Your task to perform on an android device: toggle javascript in the chrome app Image 0: 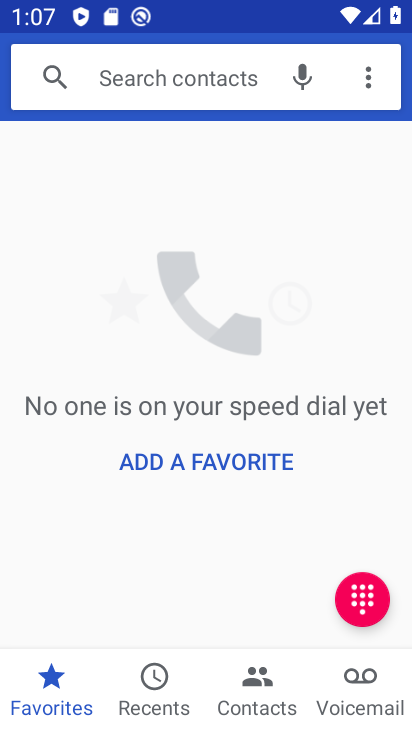
Step 0: press home button
Your task to perform on an android device: toggle javascript in the chrome app Image 1: 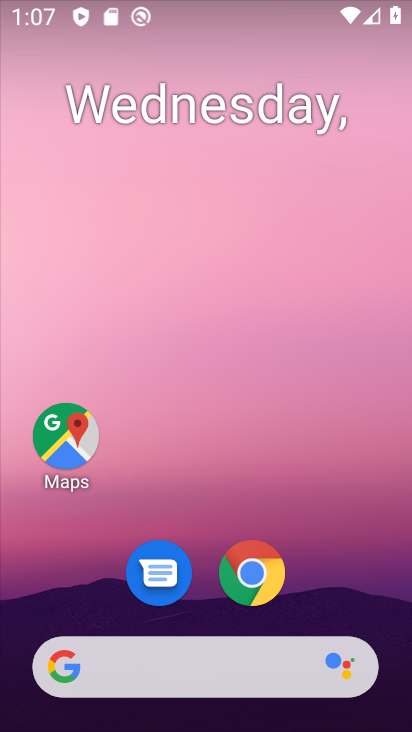
Step 1: click (264, 582)
Your task to perform on an android device: toggle javascript in the chrome app Image 2: 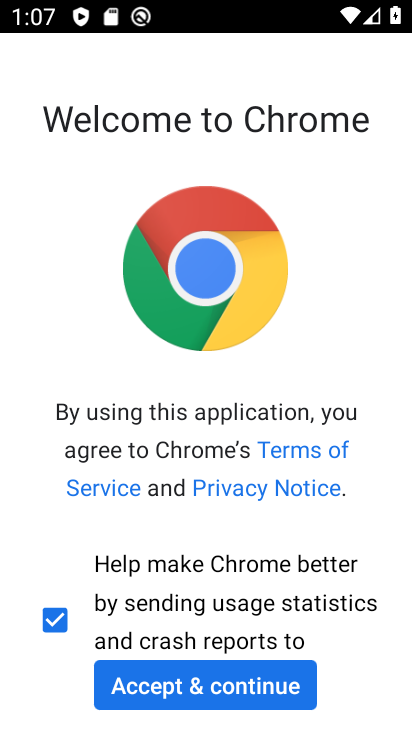
Step 2: click (246, 687)
Your task to perform on an android device: toggle javascript in the chrome app Image 3: 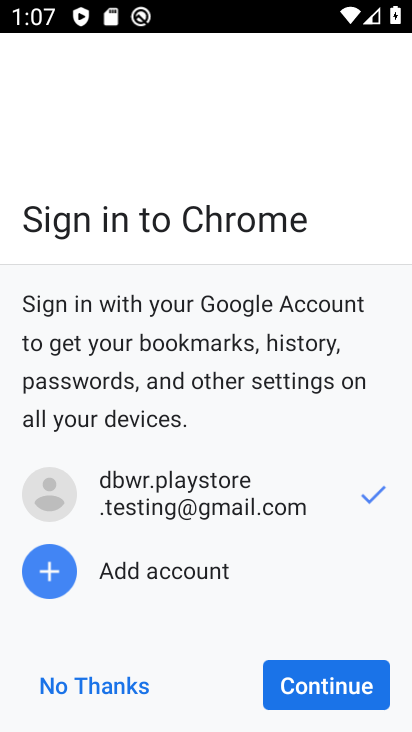
Step 3: click (302, 677)
Your task to perform on an android device: toggle javascript in the chrome app Image 4: 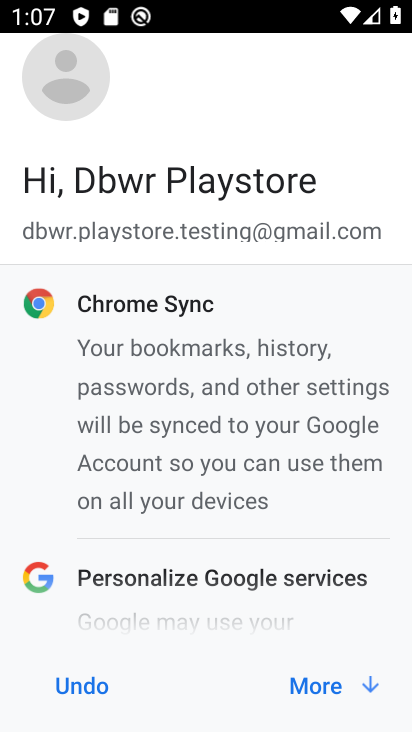
Step 4: click (314, 678)
Your task to perform on an android device: toggle javascript in the chrome app Image 5: 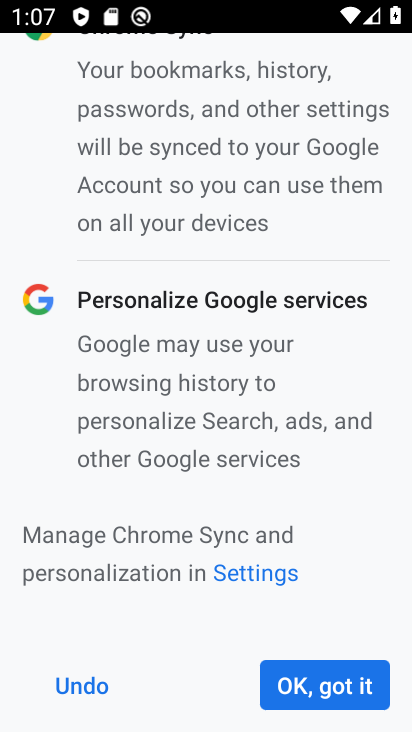
Step 5: click (321, 679)
Your task to perform on an android device: toggle javascript in the chrome app Image 6: 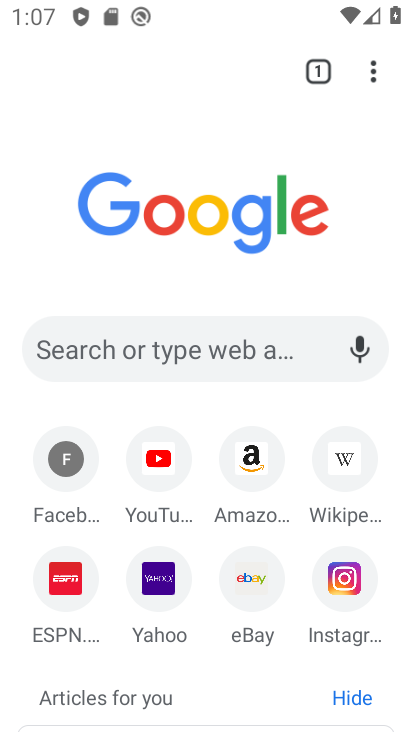
Step 6: drag from (373, 78) to (258, 613)
Your task to perform on an android device: toggle javascript in the chrome app Image 7: 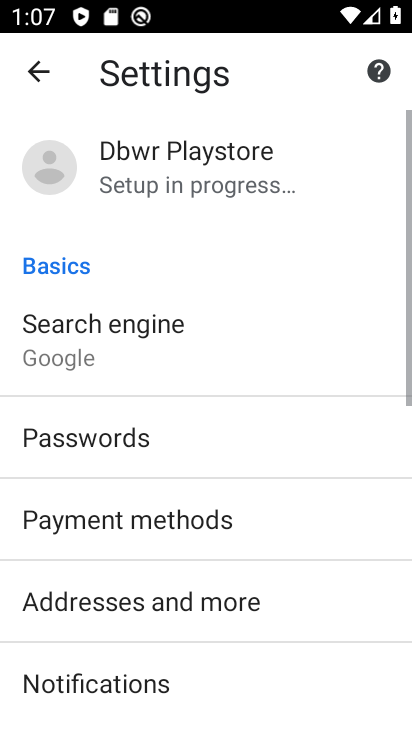
Step 7: drag from (147, 629) to (260, 272)
Your task to perform on an android device: toggle javascript in the chrome app Image 8: 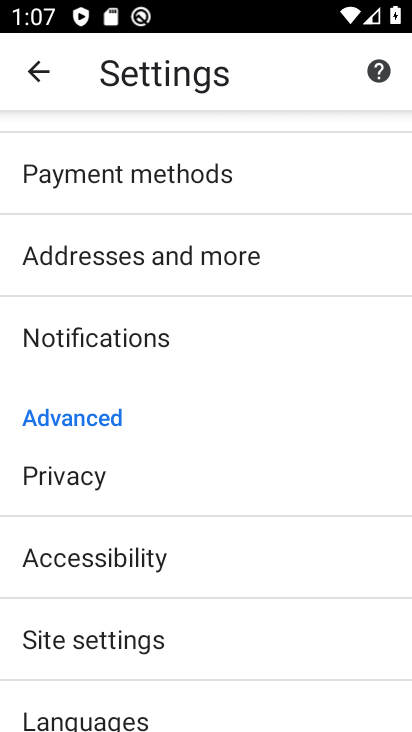
Step 8: click (190, 650)
Your task to perform on an android device: toggle javascript in the chrome app Image 9: 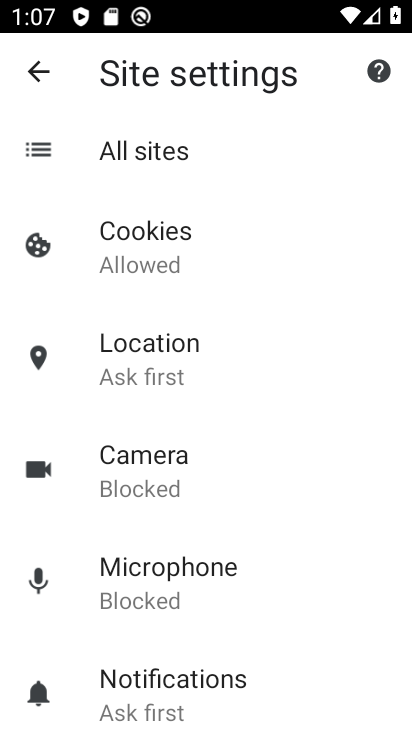
Step 9: drag from (156, 634) to (267, 193)
Your task to perform on an android device: toggle javascript in the chrome app Image 10: 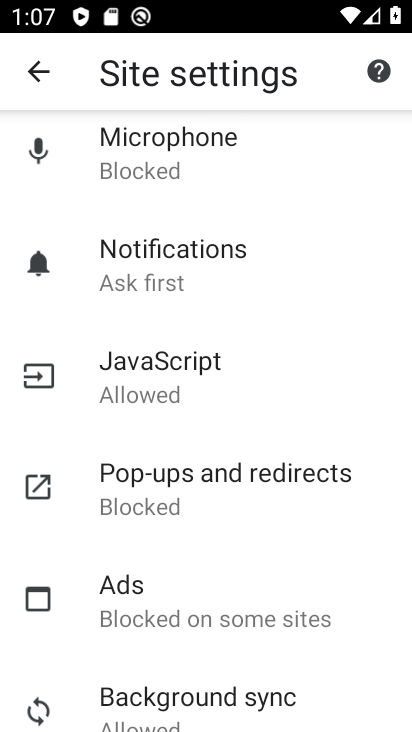
Step 10: drag from (157, 577) to (159, 455)
Your task to perform on an android device: toggle javascript in the chrome app Image 11: 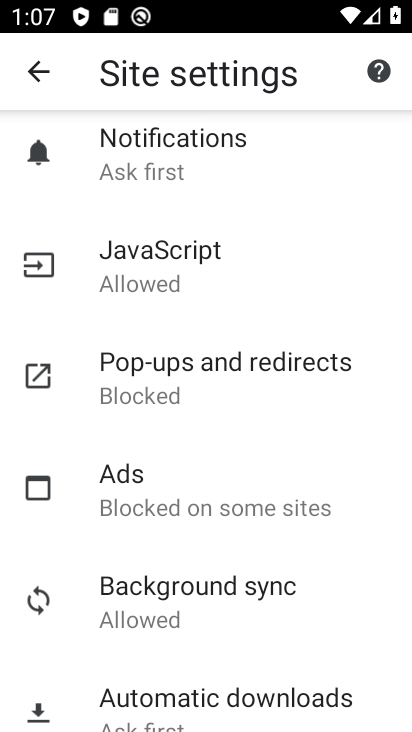
Step 11: click (219, 286)
Your task to perform on an android device: toggle javascript in the chrome app Image 12: 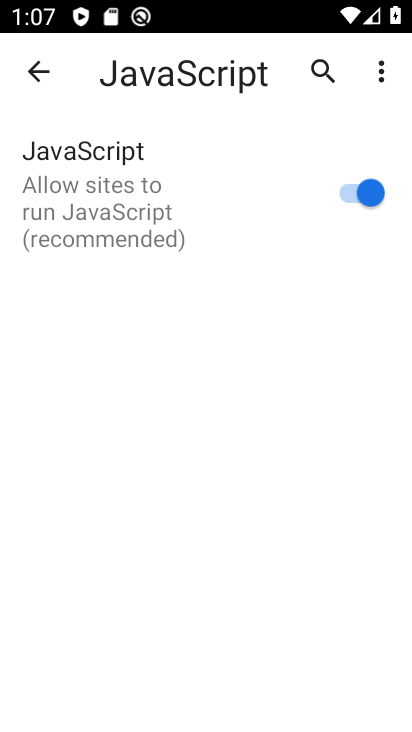
Step 12: click (347, 194)
Your task to perform on an android device: toggle javascript in the chrome app Image 13: 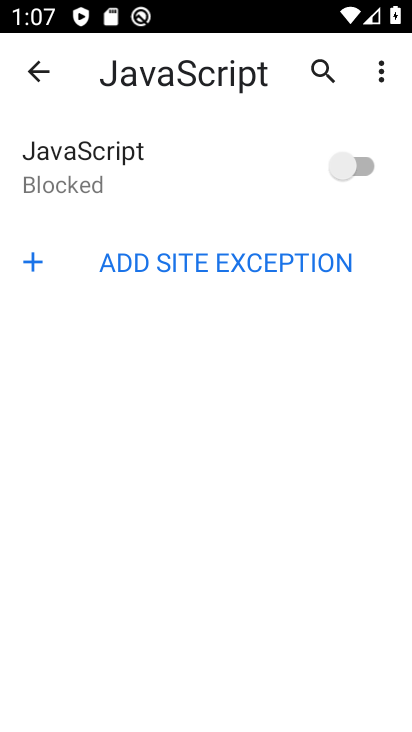
Step 13: task complete